Your task to perform on an android device: Open privacy settings Image 0: 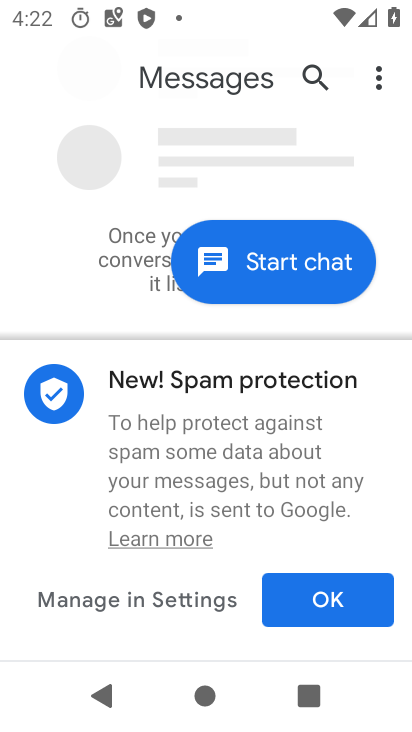
Step 0: press home button
Your task to perform on an android device: Open privacy settings Image 1: 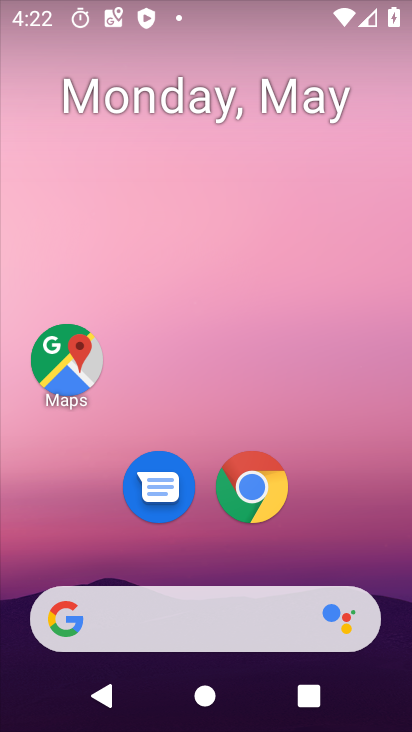
Step 1: drag from (228, 567) to (224, 378)
Your task to perform on an android device: Open privacy settings Image 2: 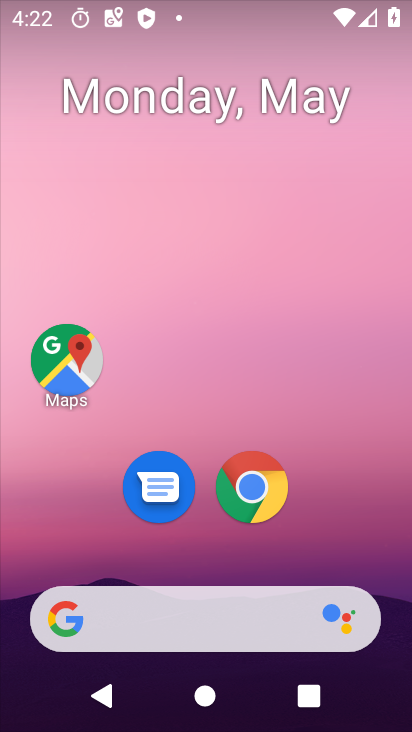
Step 2: drag from (219, 596) to (205, 401)
Your task to perform on an android device: Open privacy settings Image 3: 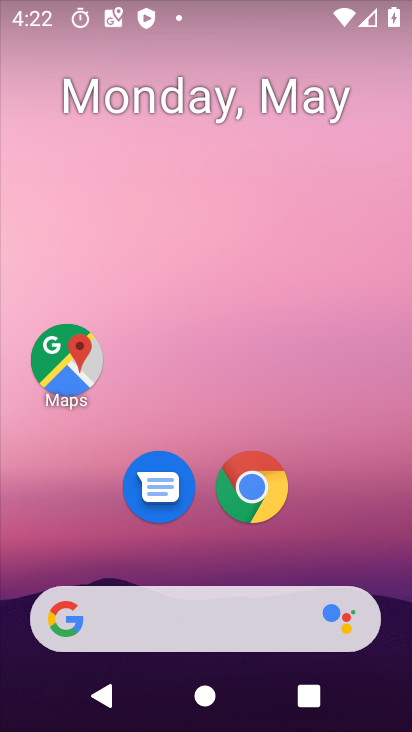
Step 3: drag from (253, 589) to (235, 91)
Your task to perform on an android device: Open privacy settings Image 4: 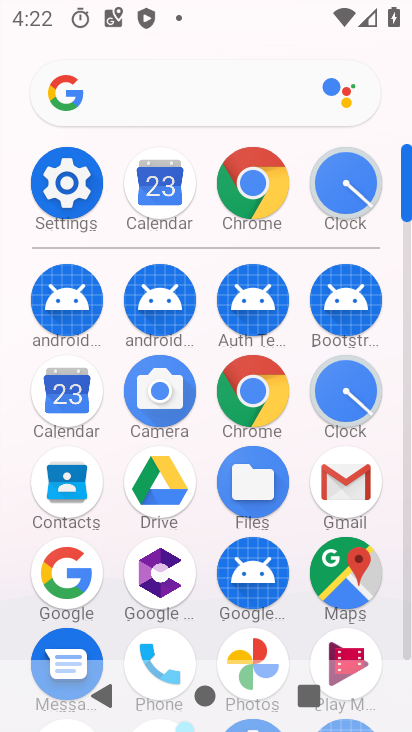
Step 4: click (50, 178)
Your task to perform on an android device: Open privacy settings Image 5: 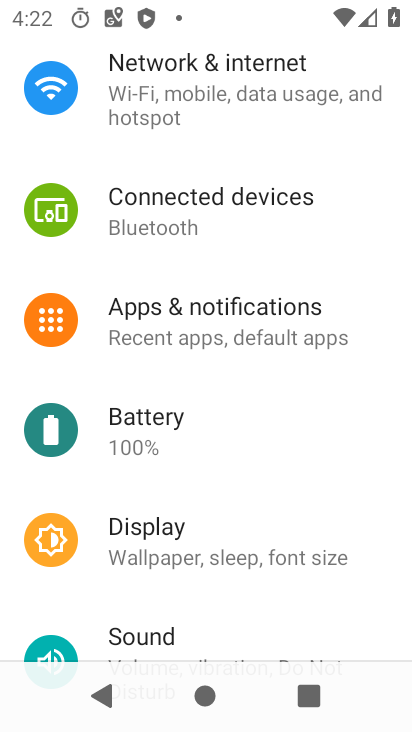
Step 5: drag from (186, 599) to (171, 154)
Your task to perform on an android device: Open privacy settings Image 6: 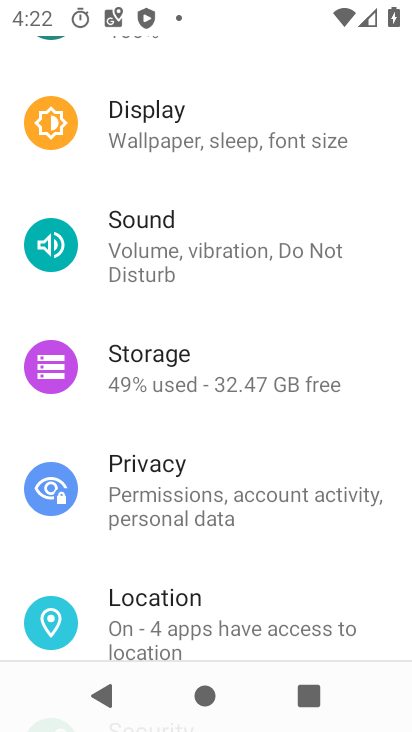
Step 6: click (174, 488)
Your task to perform on an android device: Open privacy settings Image 7: 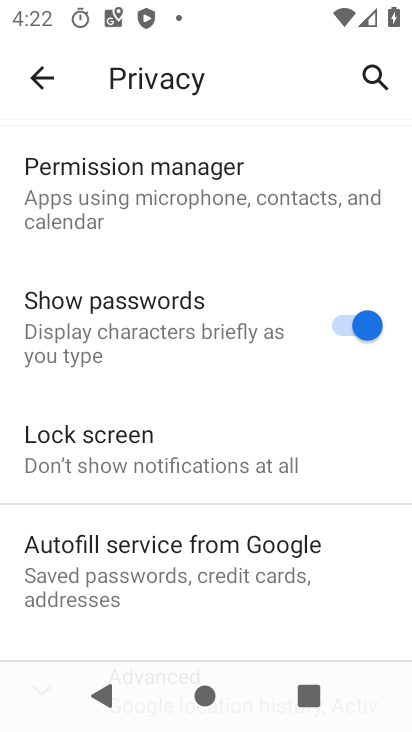
Step 7: drag from (151, 632) to (143, 181)
Your task to perform on an android device: Open privacy settings Image 8: 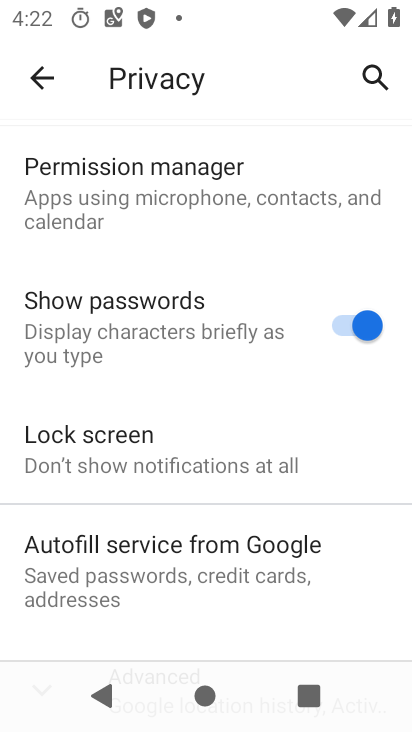
Step 8: click (196, 236)
Your task to perform on an android device: Open privacy settings Image 9: 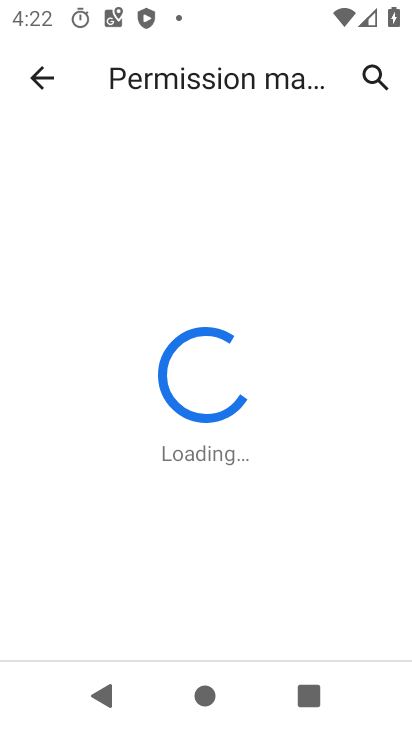
Step 9: drag from (209, 612) to (211, 356)
Your task to perform on an android device: Open privacy settings Image 10: 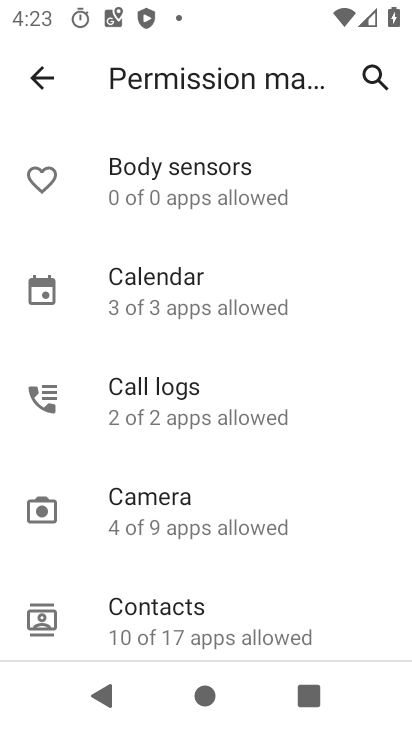
Step 10: click (21, 79)
Your task to perform on an android device: Open privacy settings Image 11: 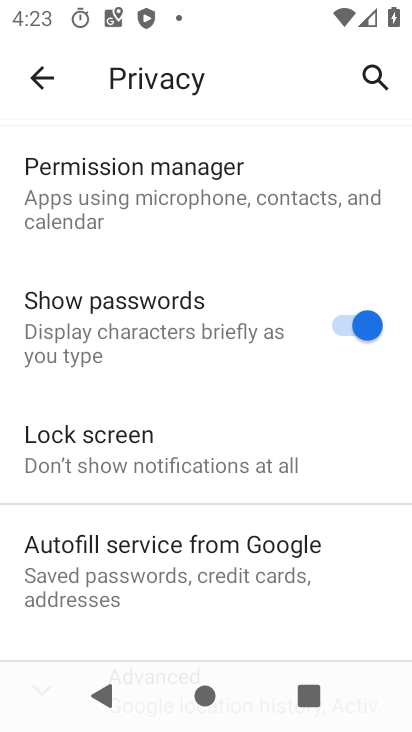
Step 11: task complete